Your task to perform on an android device: Open CNN.com Image 0: 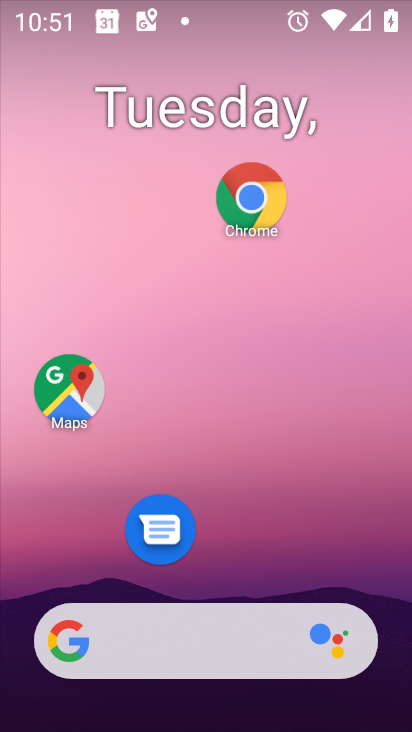
Step 0: drag from (361, 552) to (366, 116)
Your task to perform on an android device: Open CNN.com Image 1: 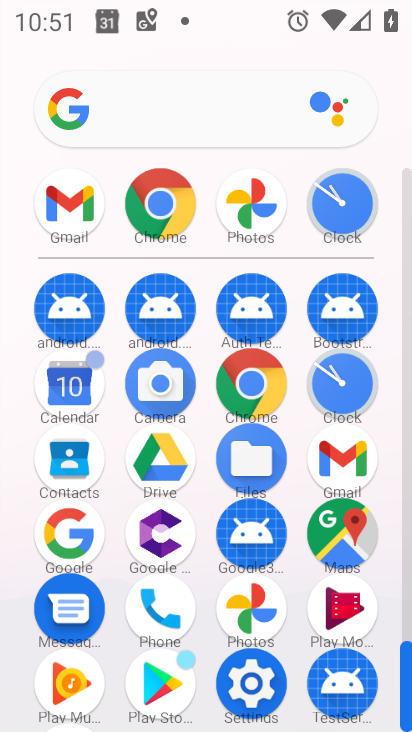
Step 1: click (170, 235)
Your task to perform on an android device: Open CNN.com Image 2: 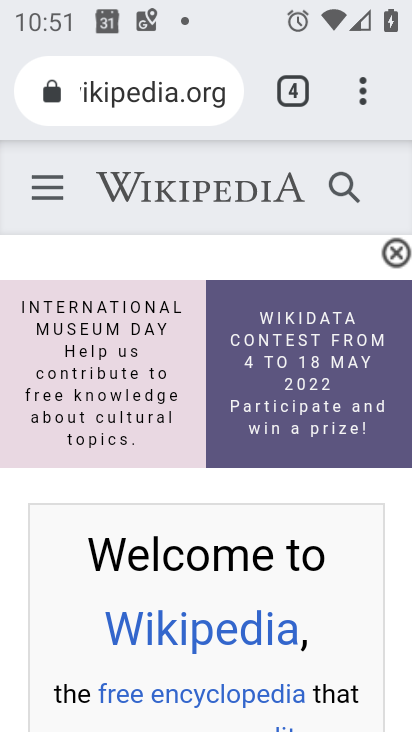
Step 2: click (203, 89)
Your task to perform on an android device: Open CNN.com Image 3: 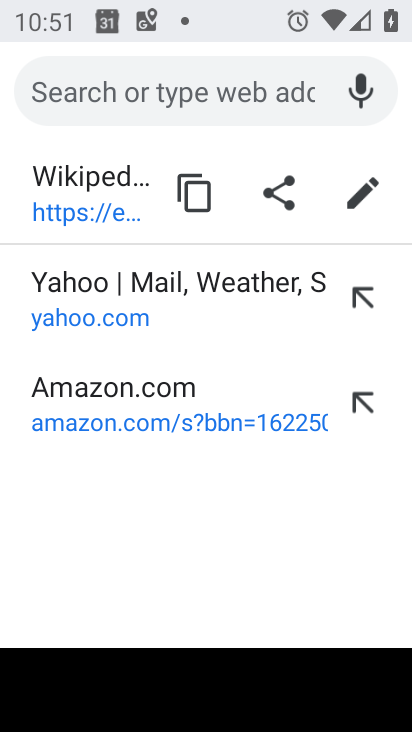
Step 3: type "cnn.com"
Your task to perform on an android device: Open CNN.com Image 4: 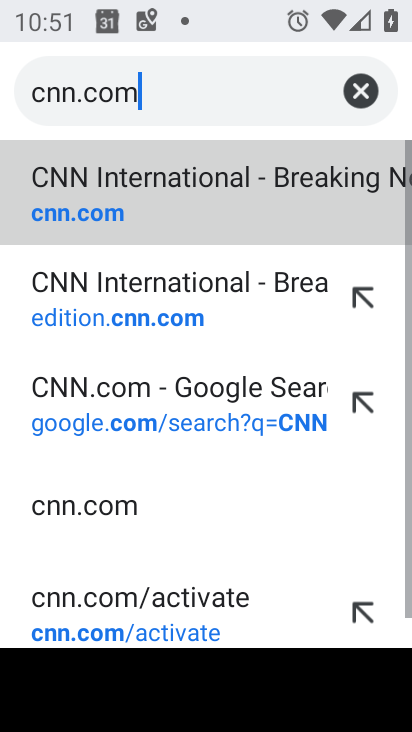
Step 4: click (85, 179)
Your task to perform on an android device: Open CNN.com Image 5: 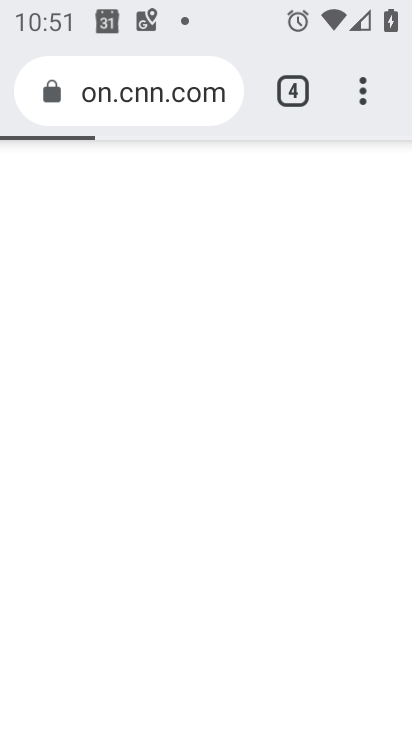
Step 5: task complete